Your task to perform on an android device: Open Reddit.com Image 0: 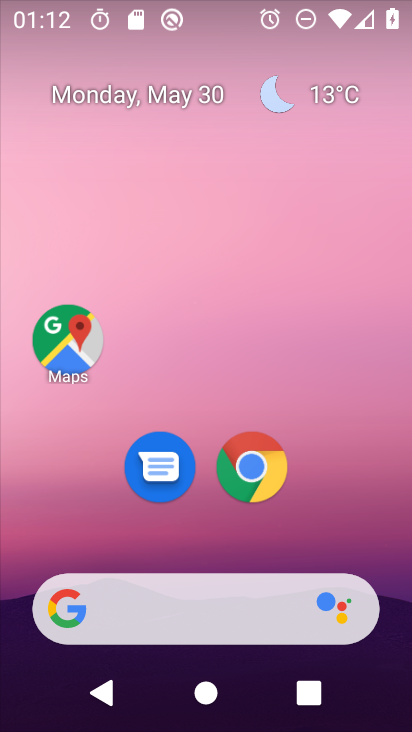
Step 0: click (251, 489)
Your task to perform on an android device: Open Reddit.com Image 1: 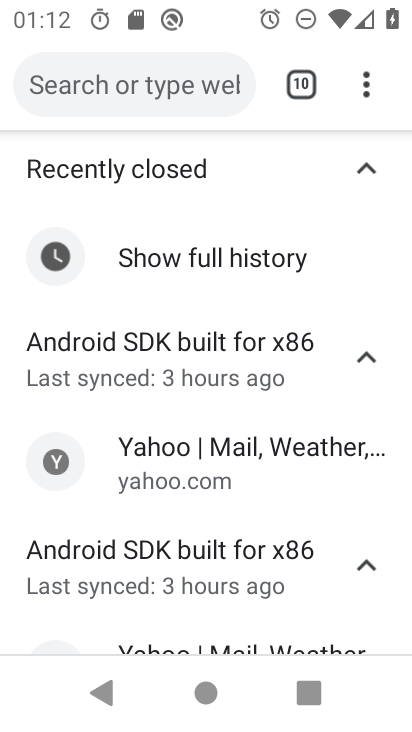
Step 1: click (310, 84)
Your task to perform on an android device: Open Reddit.com Image 2: 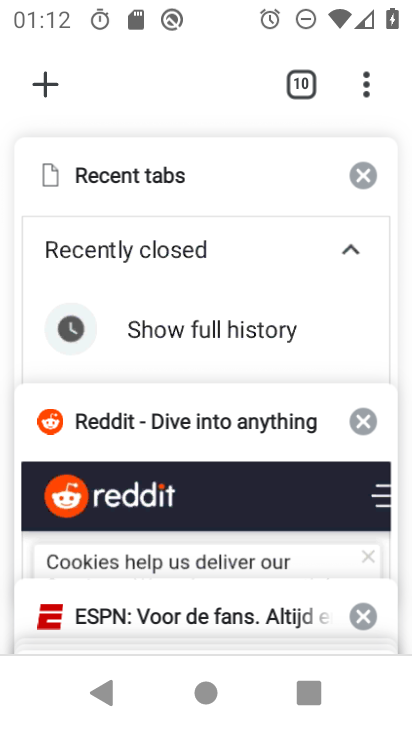
Step 2: click (169, 436)
Your task to perform on an android device: Open Reddit.com Image 3: 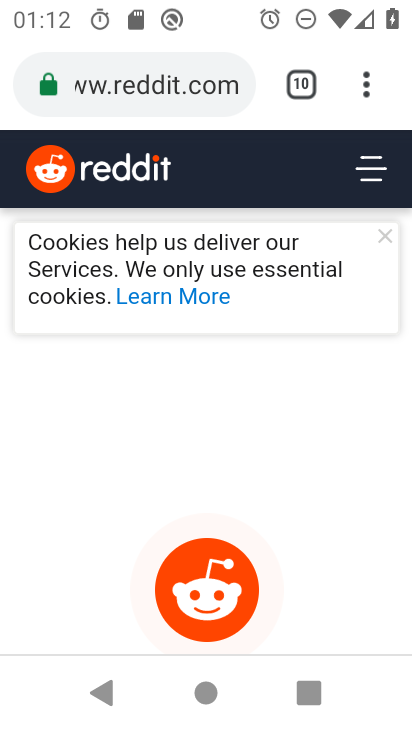
Step 3: task complete